Your task to perform on an android device: Go to notification settings Image 0: 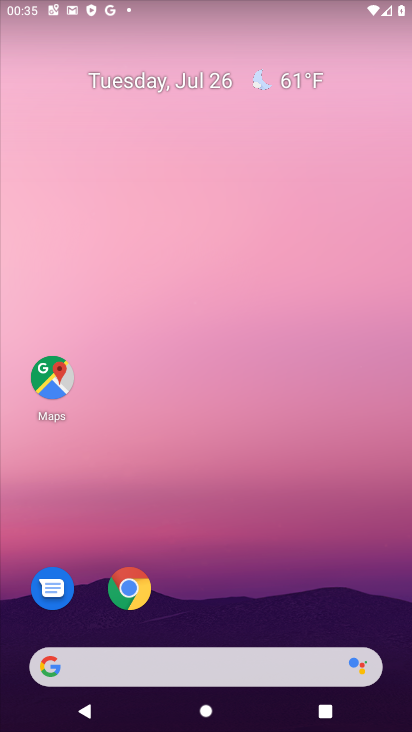
Step 0: press home button
Your task to perform on an android device: Go to notification settings Image 1: 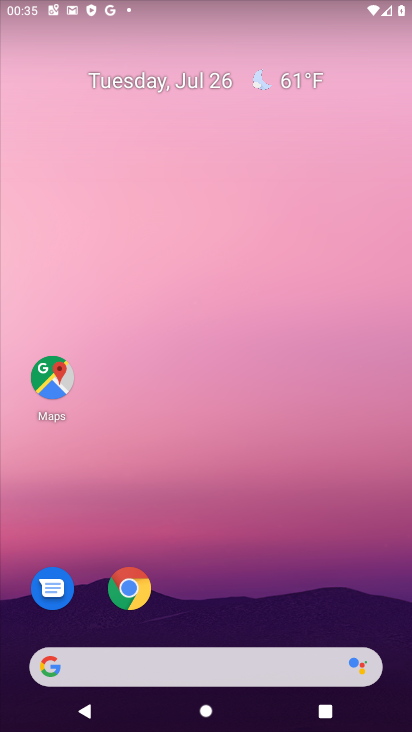
Step 1: drag from (217, 606) to (254, 3)
Your task to perform on an android device: Go to notification settings Image 2: 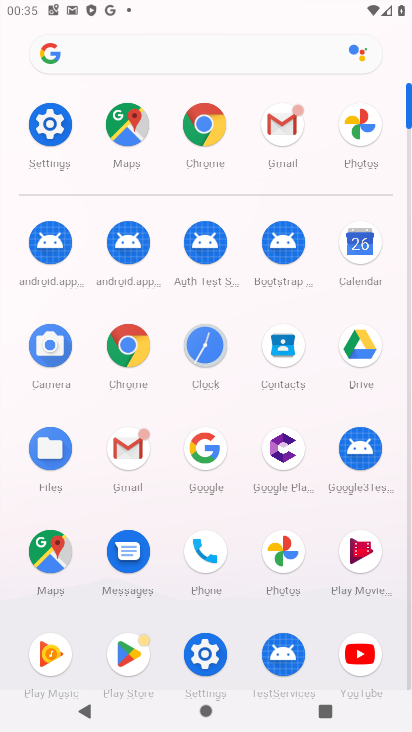
Step 2: click (201, 650)
Your task to perform on an android device: Go to notification settings Image 3: 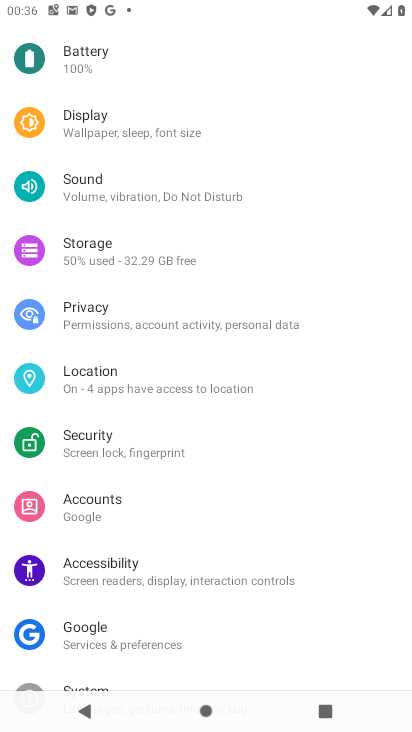
Step 3: drag from (129, 86) to (129, 591)
Your task to perform on an android device: Go to notification settings Image 4: 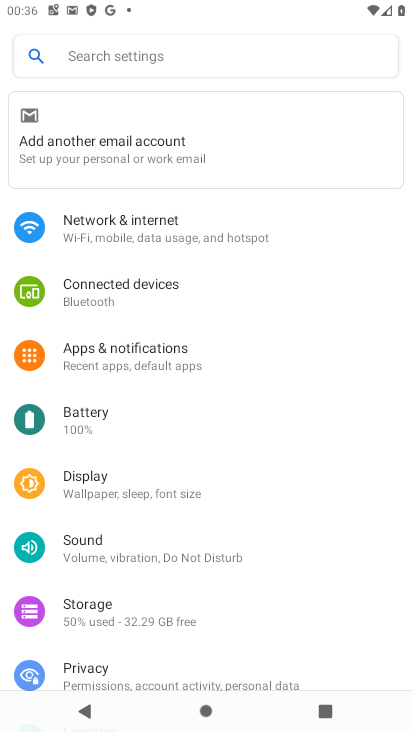
Step 4: click (184, 356)
Your task to perform on an android device: Go to notification settings Image 5: 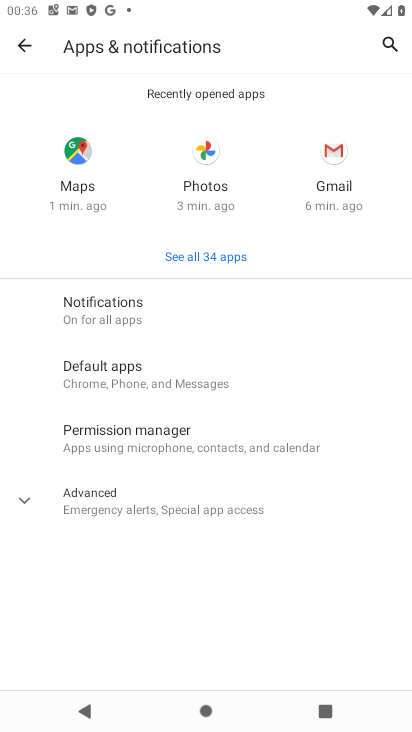
Step 5: click (134, 306)
Your task to perform on an android device: Go to notification settings Image 6: 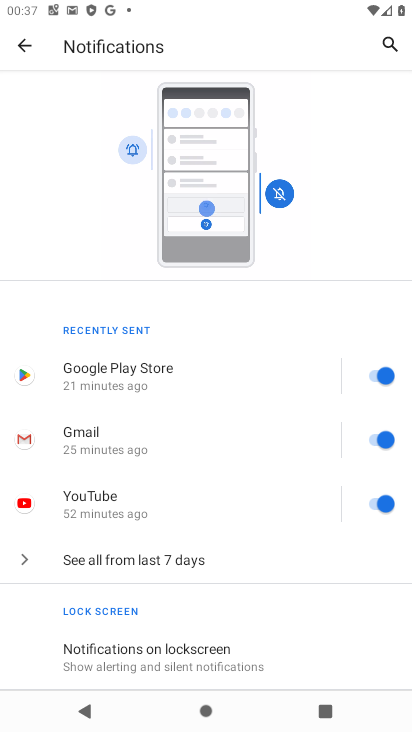
Step 6: drag from (191, 626) to (210, 159)
Your task to perform on an android device: Go to notification settings Image 7: 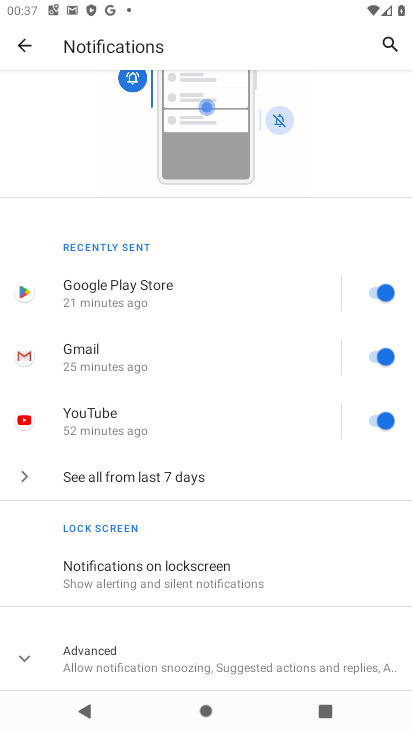
Step 7: click (28, 656)
Your task to perform on an android device: Go to notification settings Image 8: 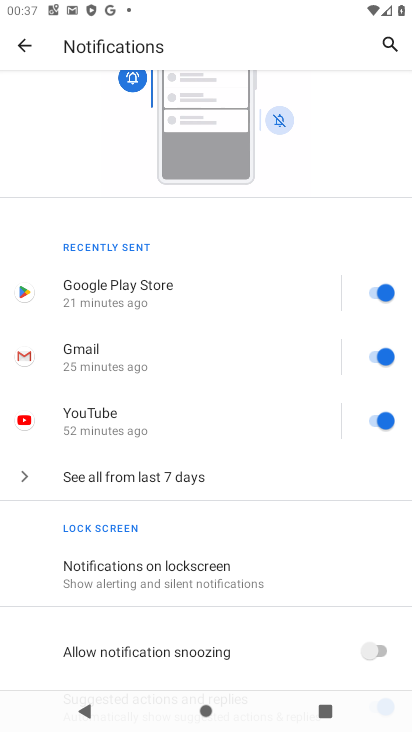
Step 8: task complete